Your task to perform on an android device: toggle data saver in the chrome app Image 0: 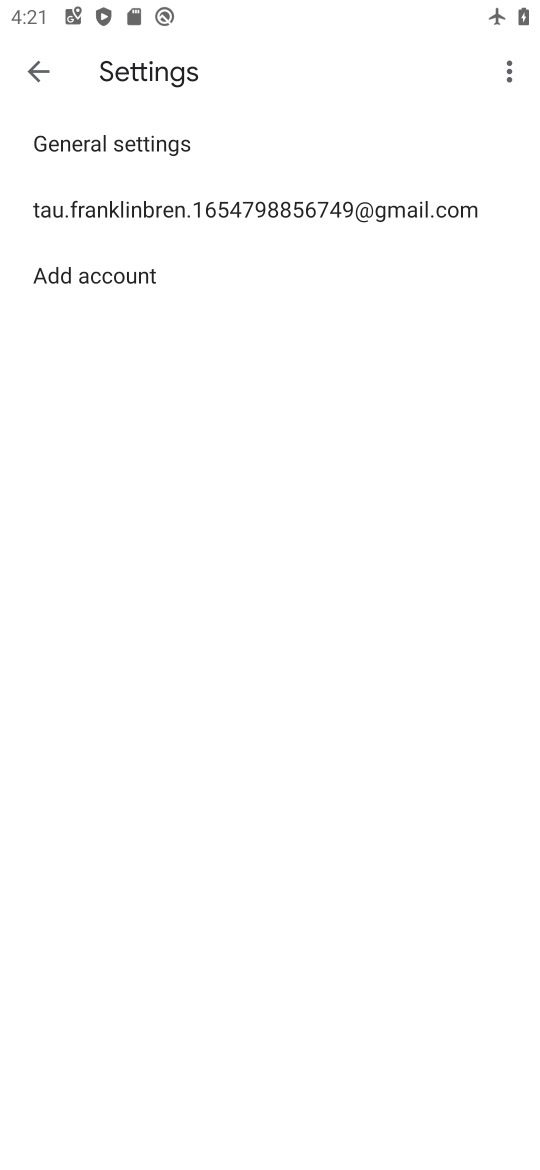
Step 0: press home button
Your task to perform on an android device: toggle data saver in the chrome app Image 1: 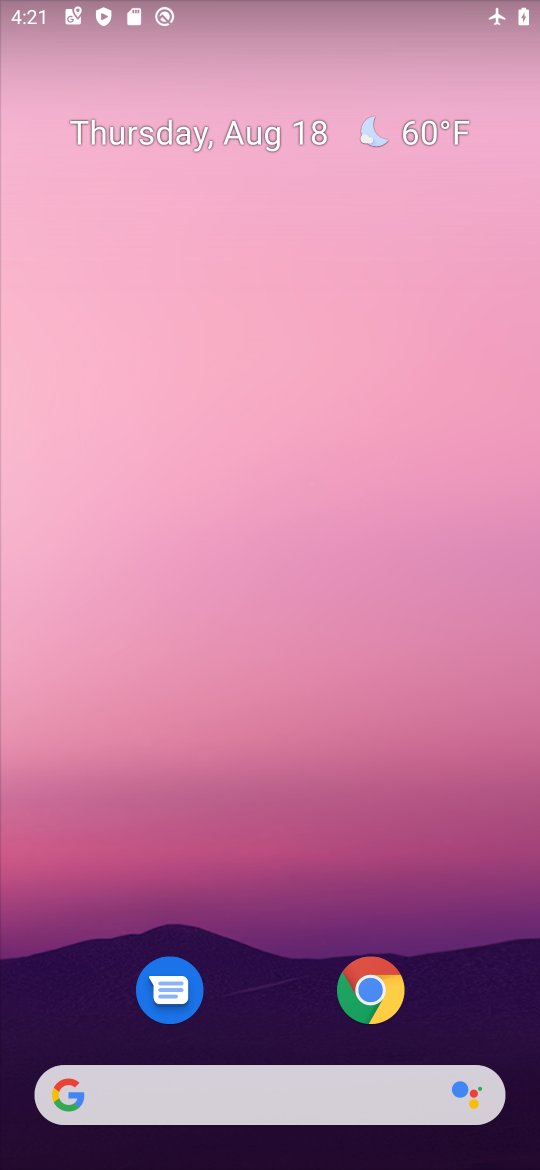
Step 1: drag from (271, 901) to (238, 19)
Your task to perform on an android device: toggle data saver in the chrome app Image 2: 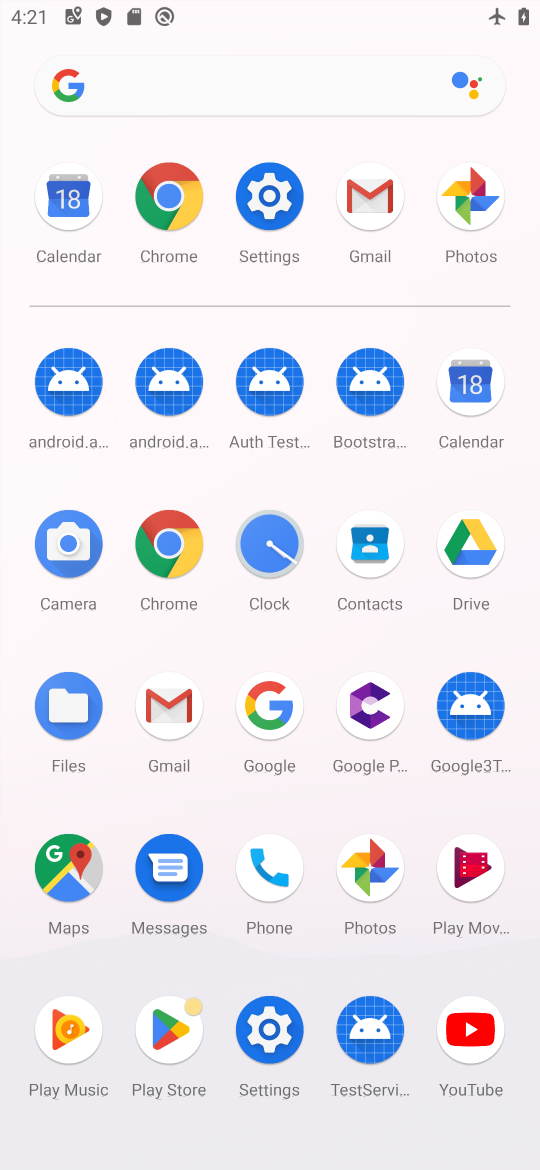
Step 2: click (285, 1022)
Your task to perform on an android device: toggle data saver in the chrome app Image 3: 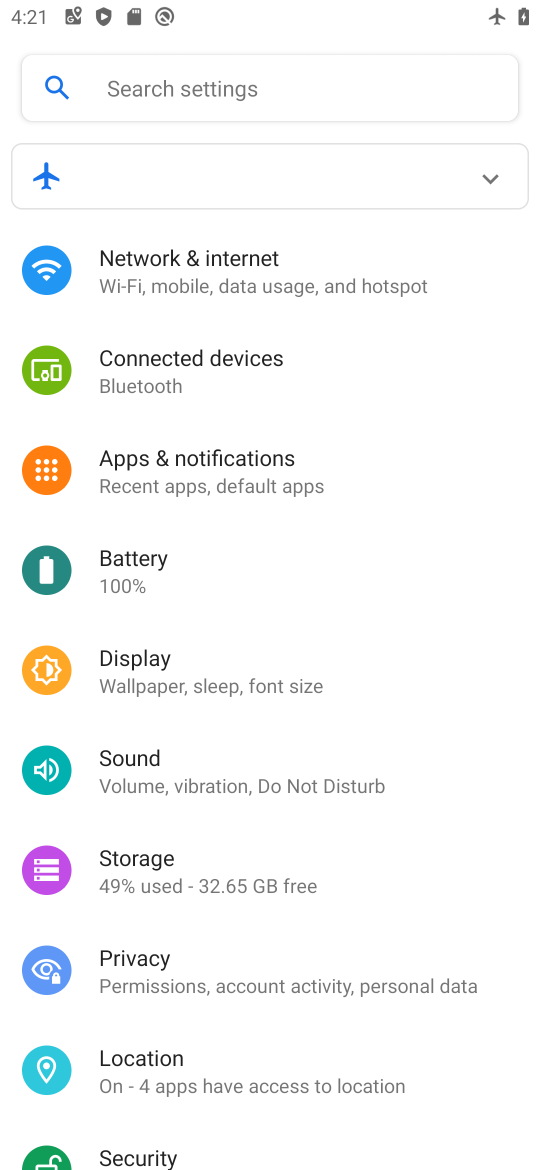
Step 3: drag from (247, 1037) to (302, 727)
Your task to perform on an android device: toggle data saver in the chrome app Image 4: 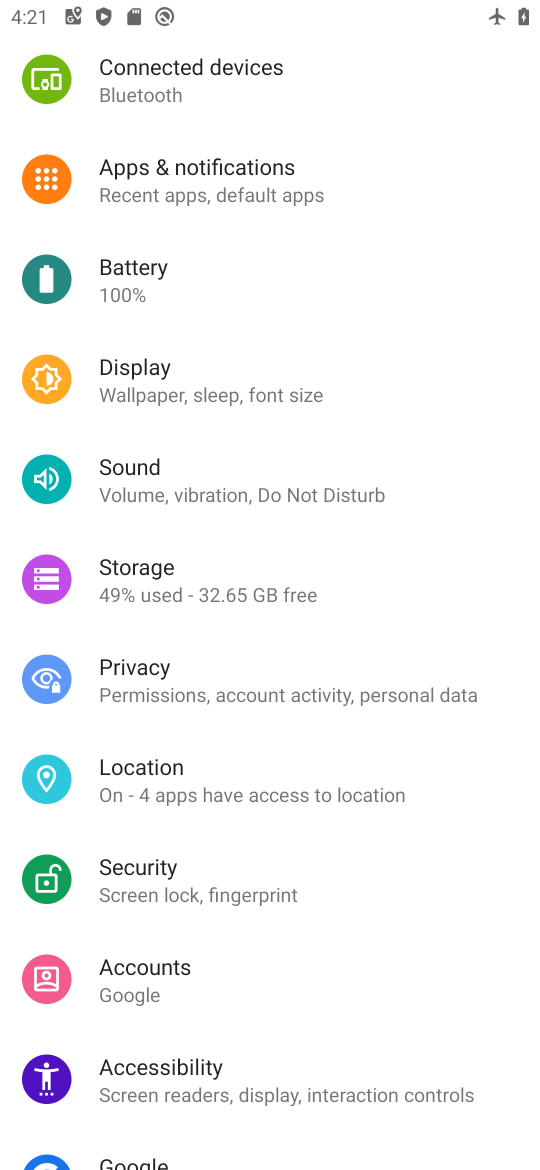
Step 4: press home button
Your task to perform on an android device: toggle data saver in the chrome app Image 5: 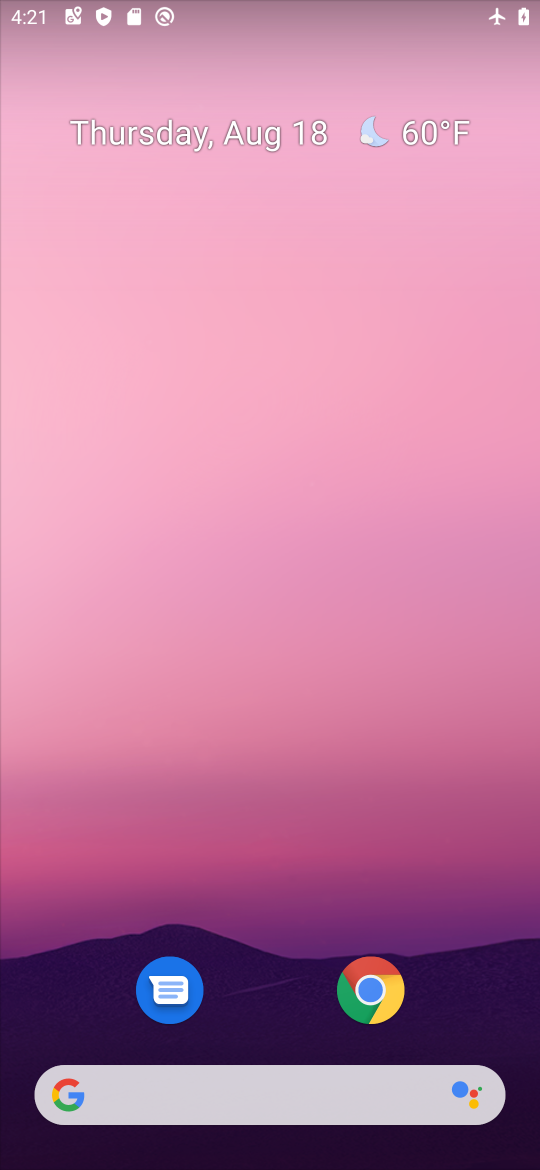
Step 5: drag from (275, 949) to (312, 86)
Your task to perform on an android device: toggle data saver in the chrome app Image 6: 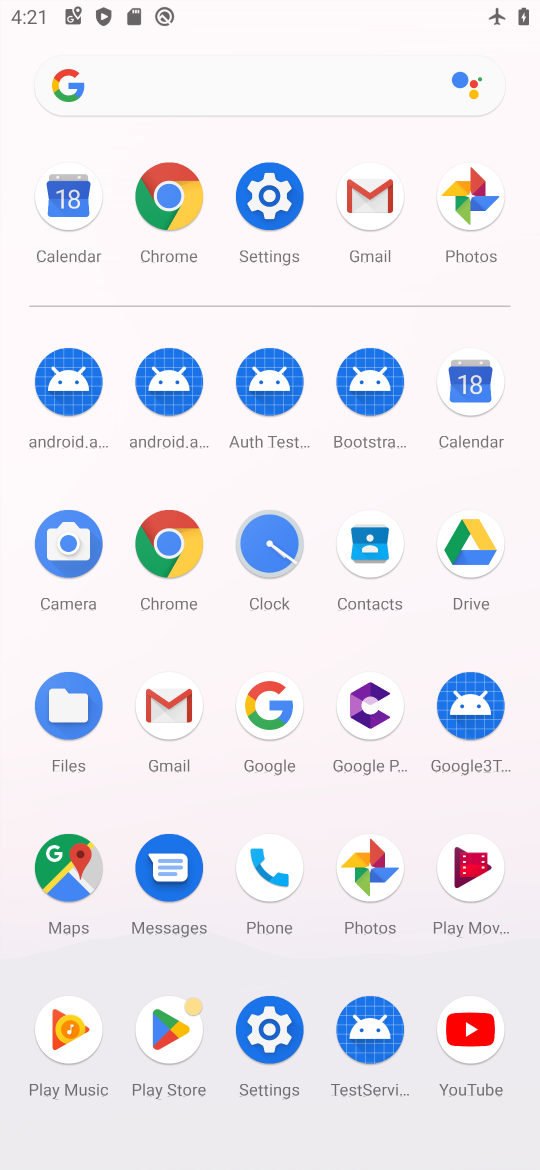
Step 6: click (164, 525)
Your task to perform on an android device: toggle data saver in the chrome app Image 7: 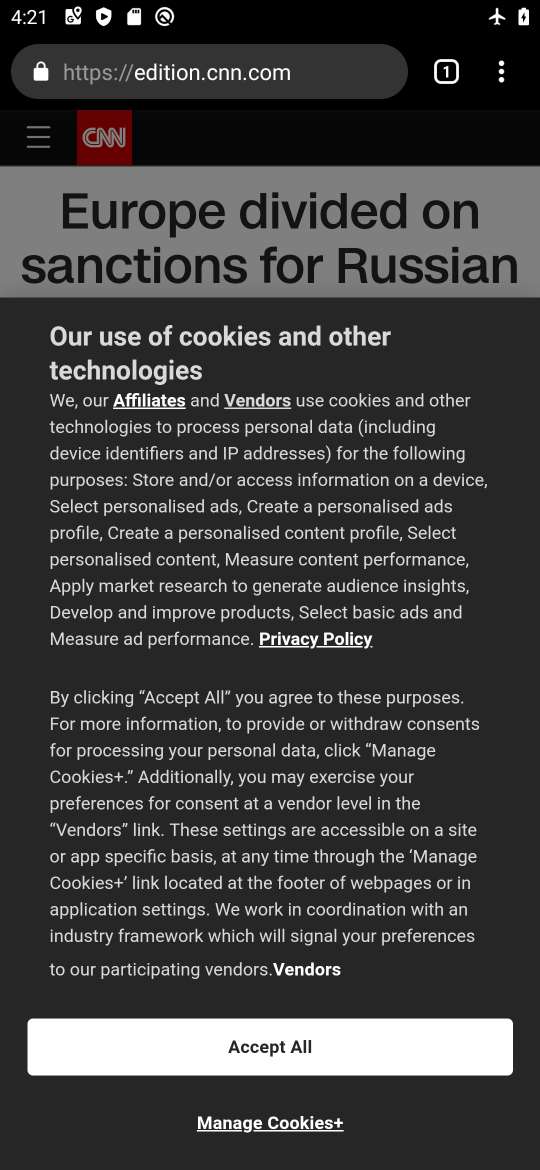
Step 7: drag from (502, 78) to (288, 789)
Your task to perform on an android device: toggle data saver in the chrome app Image 8: 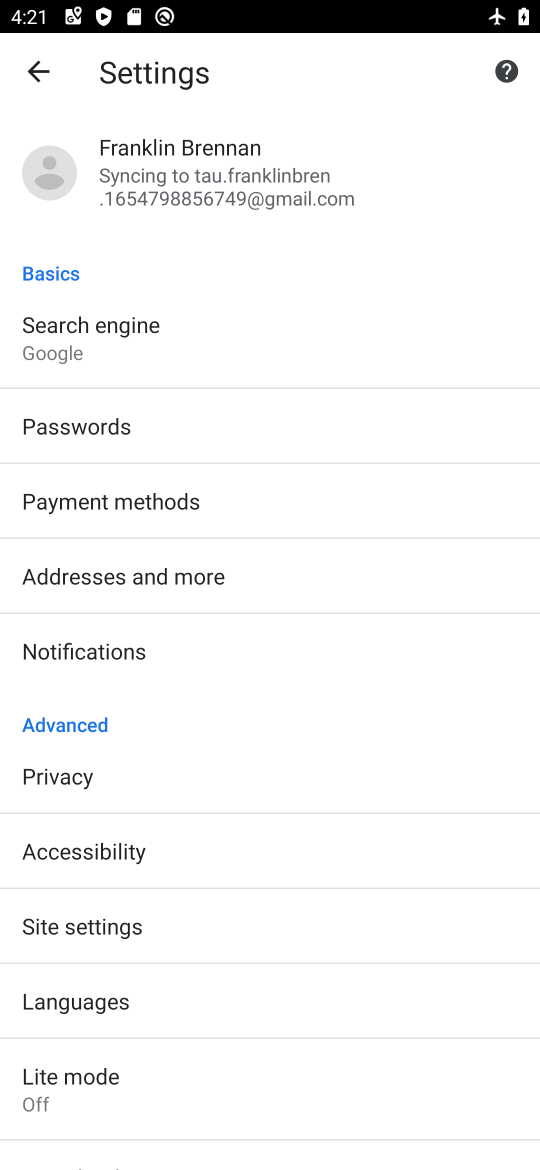
Step 8: drag from (199, 955) to (300, 135)
Your task to perform on an android device: toggle data saver in the chrome app Image 9: 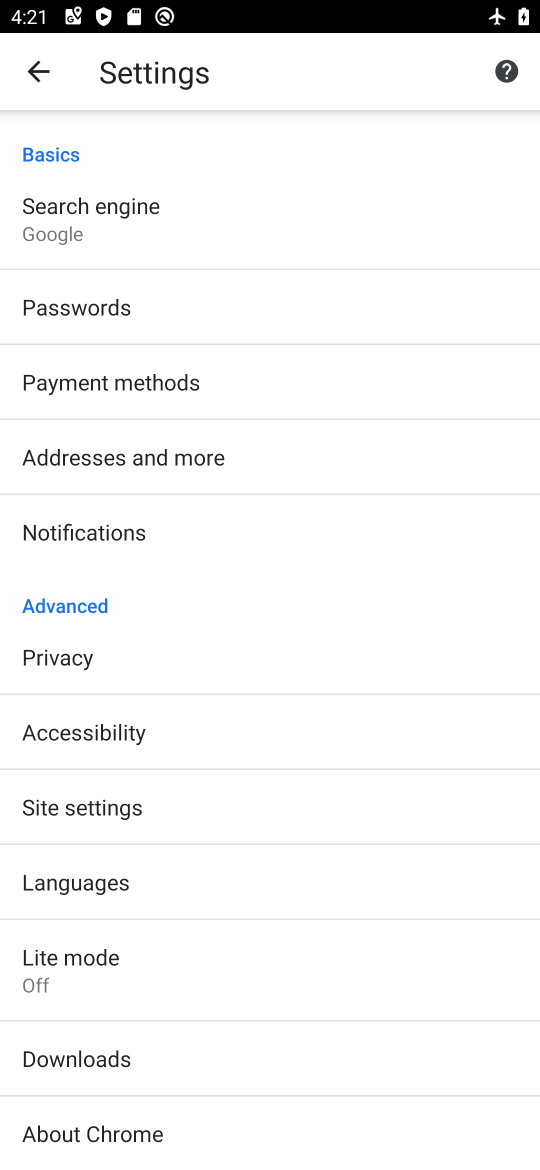
Step 9: click (65, 958)
Your task to perform on an android device: toggle data saver in the chrome app Image 10: 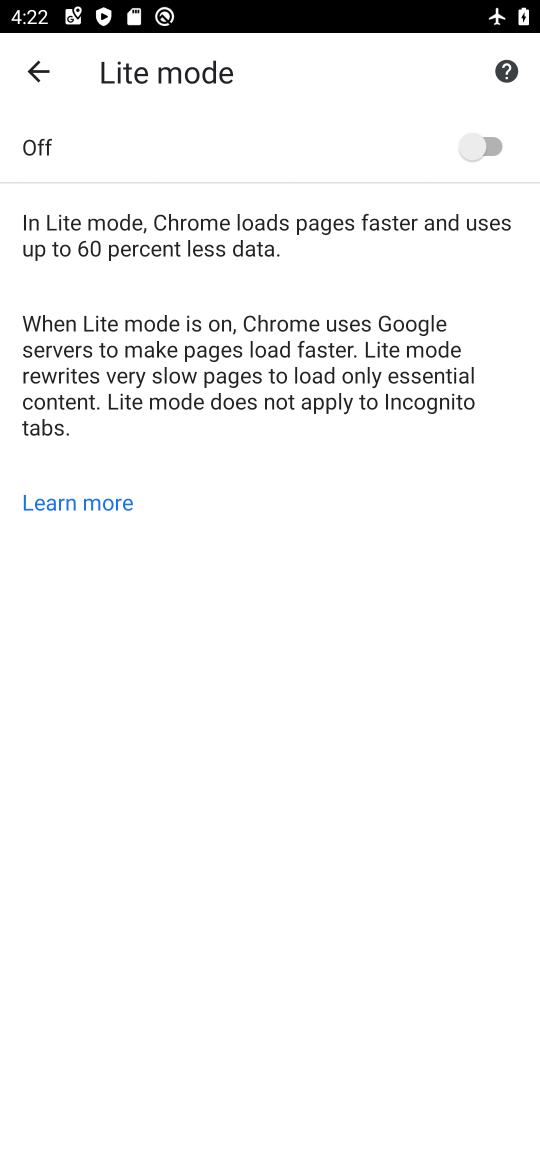
Step 10: click (507, 146)
Your task to perform on an android device: toggle data saver in the chrome app Image 11: 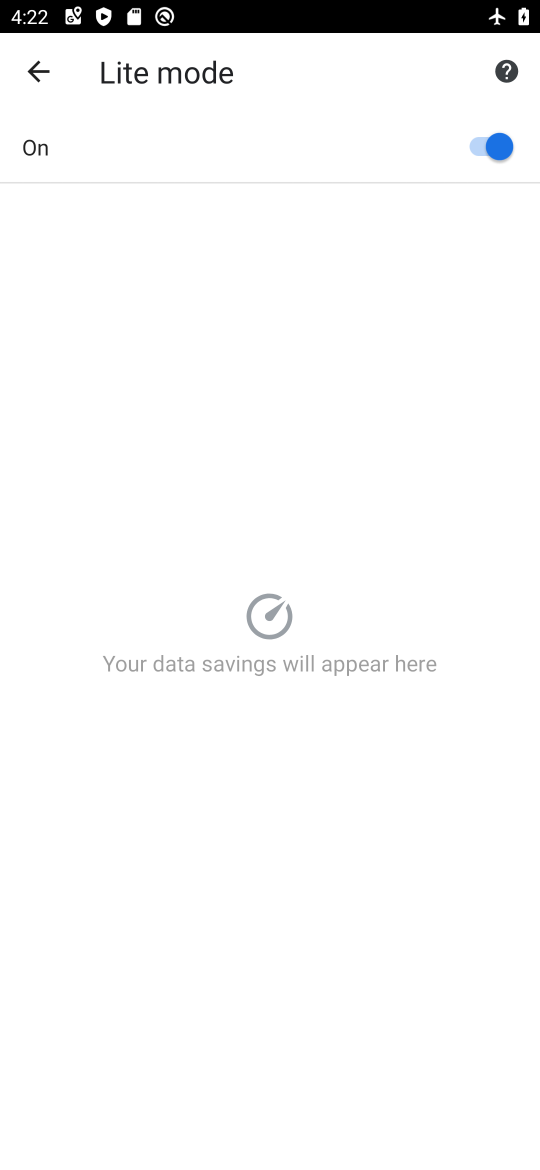
Step 11: task complete